Your task to perform on an android device: Go to sound settings Image 0: 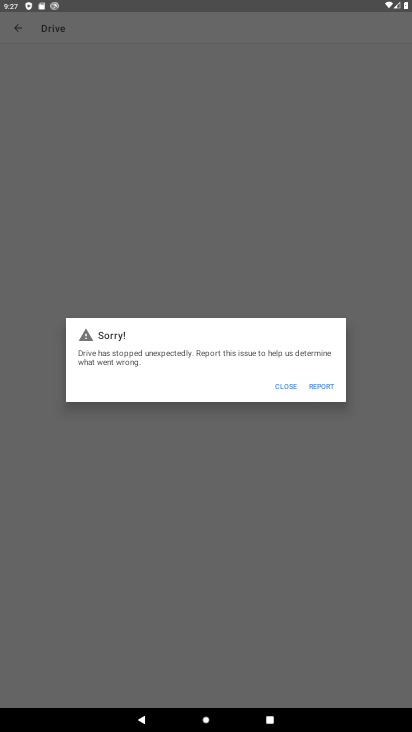
Step 0: press home button
Your task to perform on an android device: Go to sound settings Image 1: 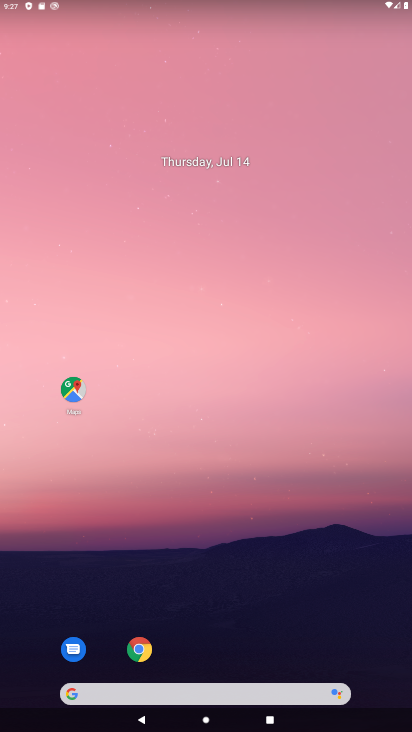
Step 1: drag from (212, 651) to (224, 0)
Your task to perform on an android device: Go to sound settings Image 2: 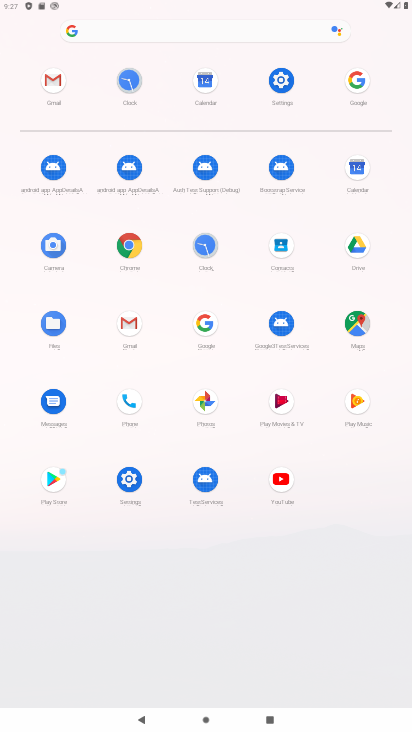
Step 2: click (295, 110)
Your task to perform on an android device: Go to sound settings Image 3: 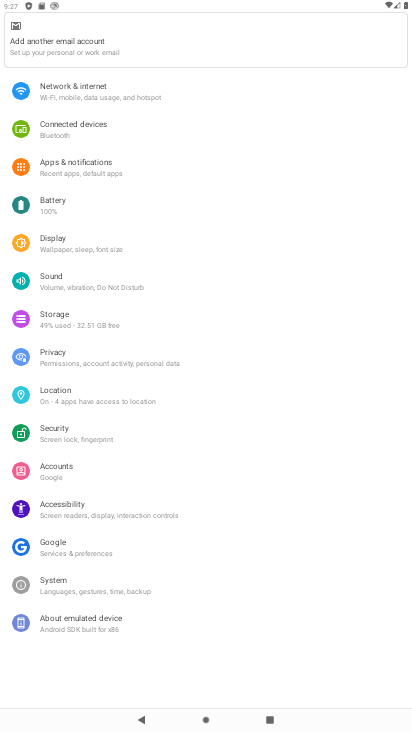
Step 3: click (47, 286)
Your task to perform on an android device: Go to sound settings Image 4: 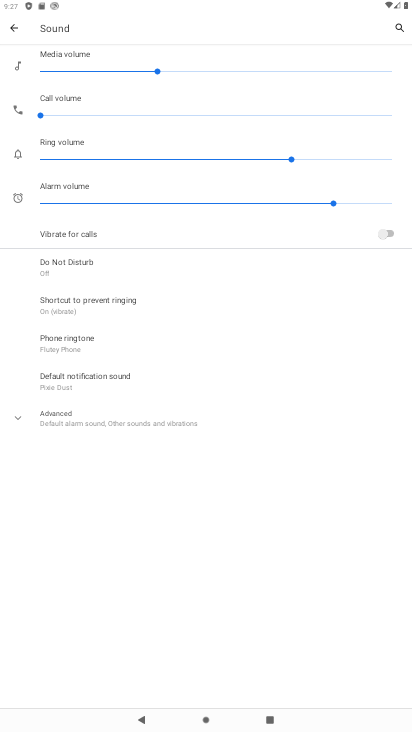
Step 4: task complete